Your task to perform on an android device: Open settings on Google Maps Image 0: 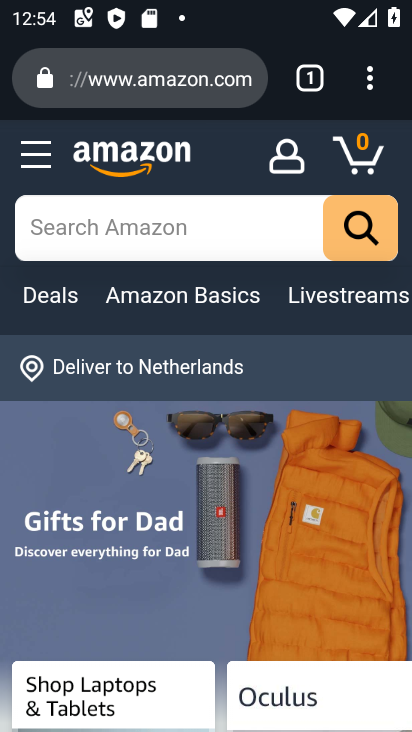
Step 0: press home button
Your task to perform on an android device: Open settings on Google Maps Image 1: 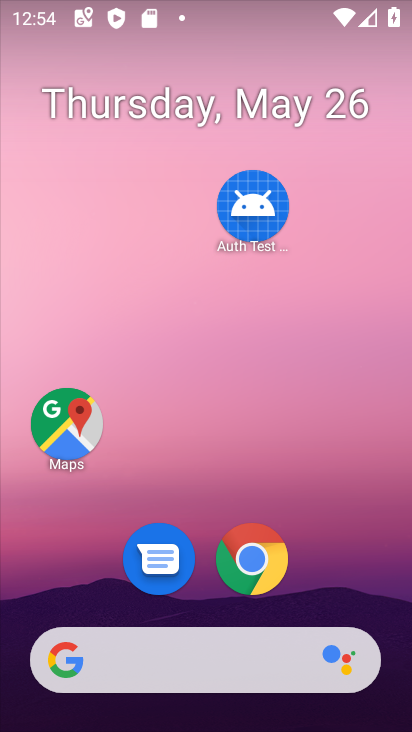
Step 1: click (67, 402)
Your task to perform on an android device: Open settings on Google Maps Image 2: 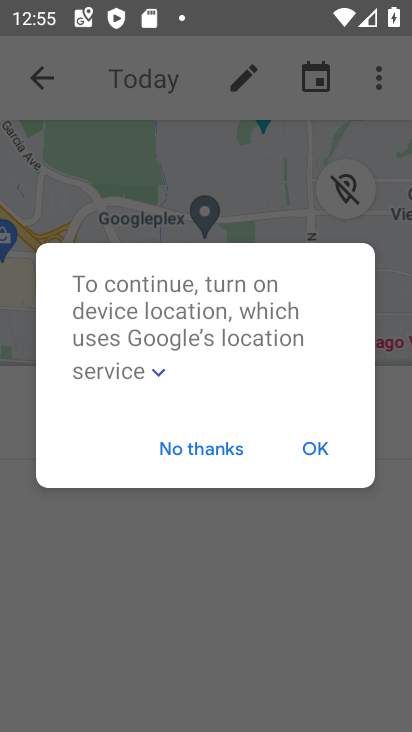
Step 2: click (306, 452)
Your task to perform on an android device: Open settings on Google Maps Image 3: 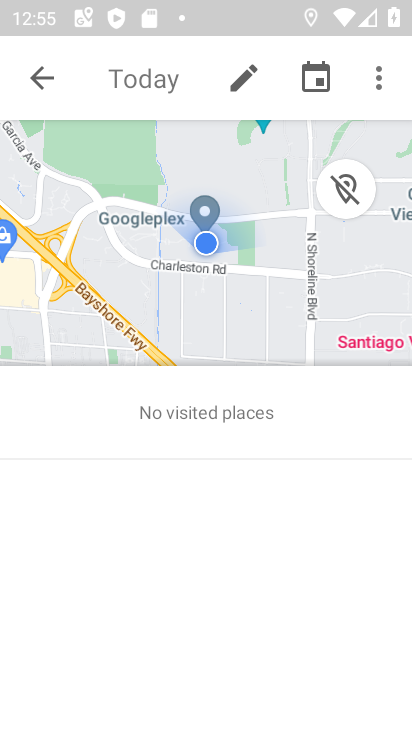
Step 3: click (50, 72)
Your task to perform on an android device: Open settings on Google Maps Image 4: 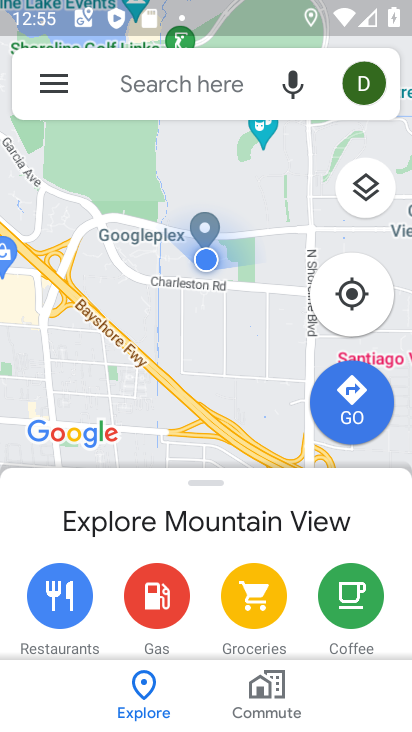
Step 4: click (52, 76)
Your task to perform on an android device: Open settings on Google Maps Image 5: 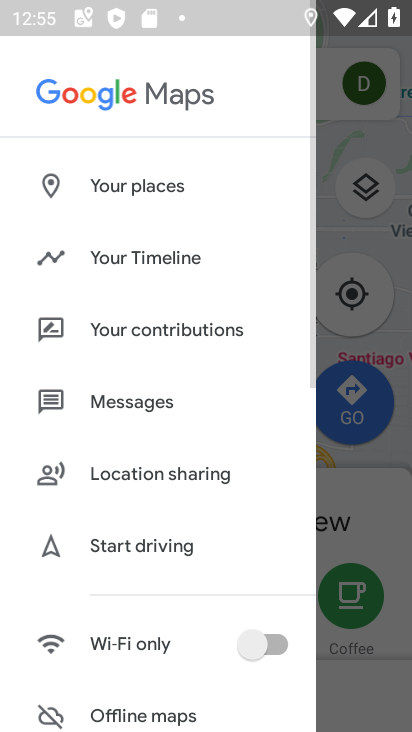
Step 5: drag from (147, 626) to (98, 339)
Your task to perform on an android device: Open settings on Google Maps Image 6: 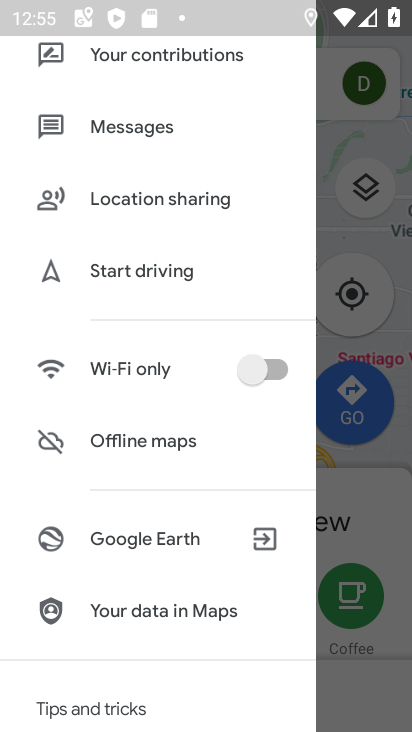
Step 6: drag from (99, 674) to (104, 412)
Your task to perform on an android device: Open settings on Google Maps Image 7: 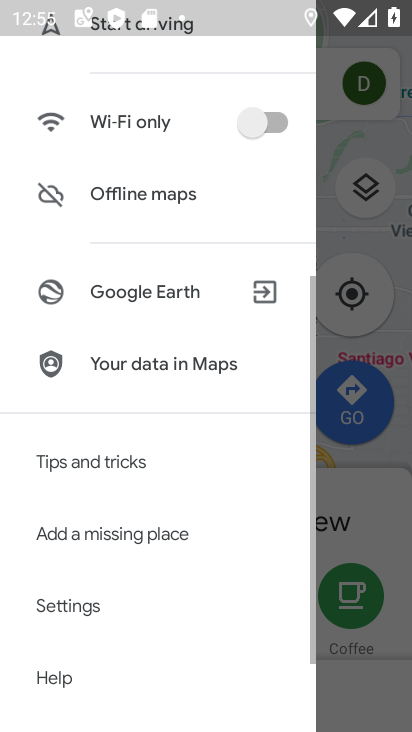
Step 7: click (113, 603)
Your task to perform on an android device: Open settings on Google Maps Image 8: 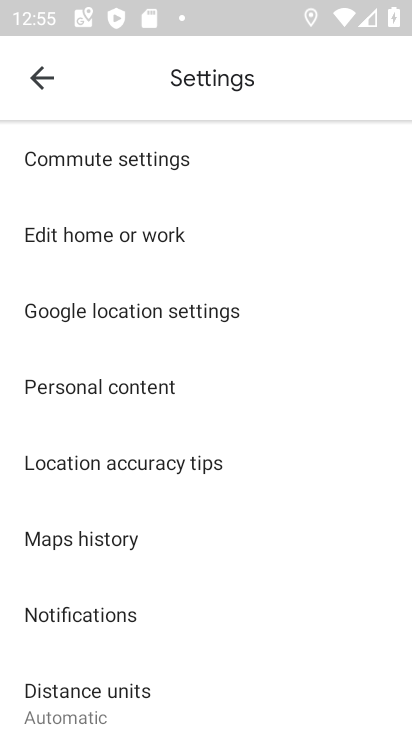
Step 8: task complete